Your task to perform on an android device: toggle notification dots Image 0: 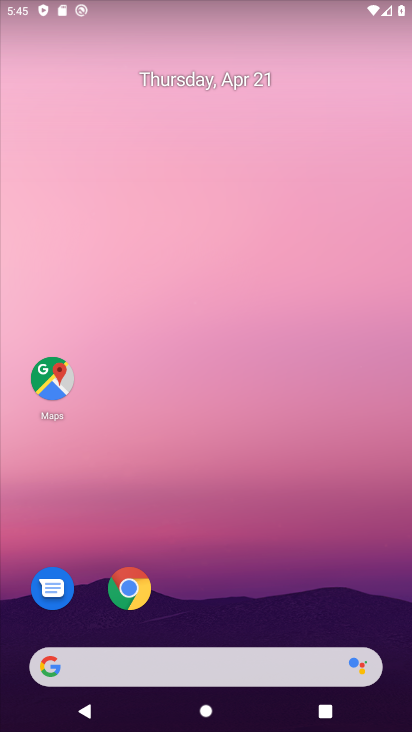
Step 0: drag from (280, 571) to (202, 231)
Your task to perform on an android device: toggle notification dots Image 1: 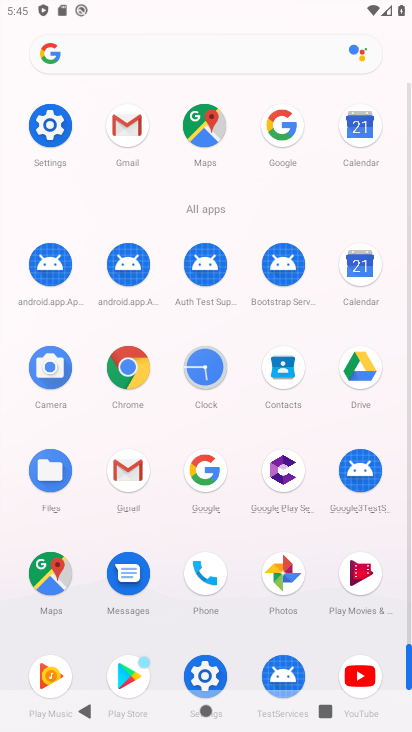
Step 1: click (34, 134)
Your task to perform on an android device: toggle notification dots Image 2: 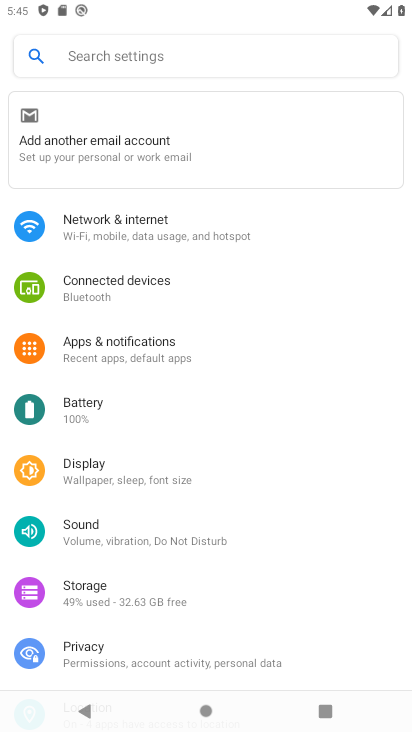
Step 2: click (158, 355)
Your task to perform on an android device: toggle notification dots Image 3: 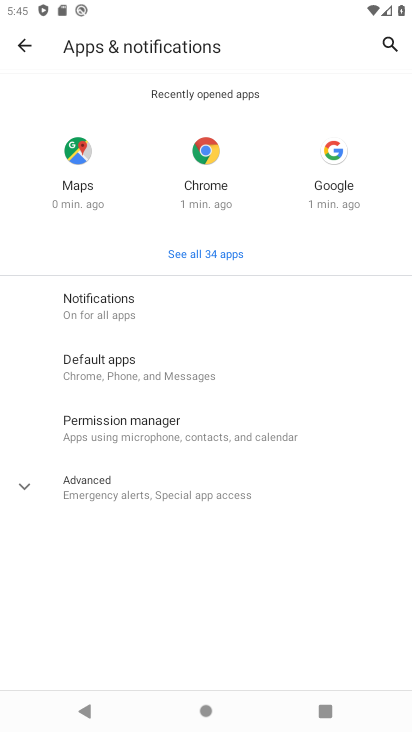
Step 3: click (108, 322)
Your task to perform on an android device: toggle notification dots Image 4: 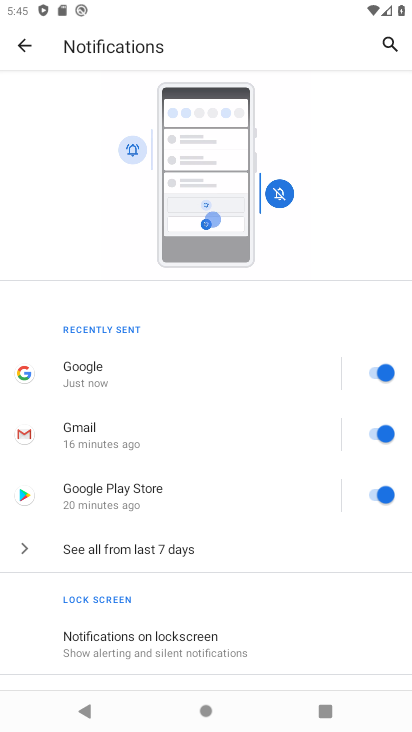
Step 4: drag from (174, 611) to (181, 327)
Your task to perform on an android device: toggle notification dots Image 5: 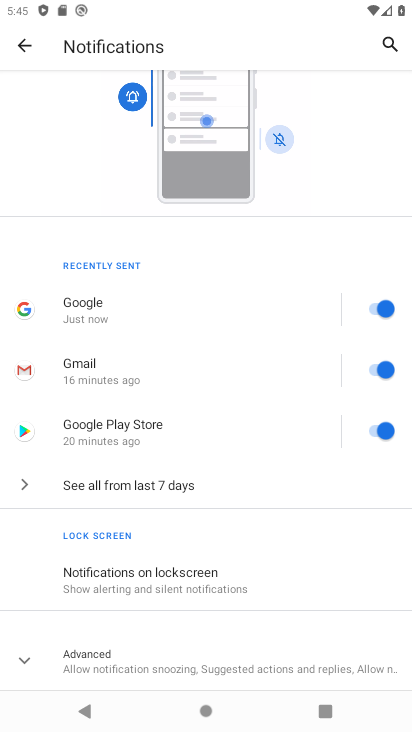
Step 5: click (101, 660)
Your task to perform on an android device: toggle notification dots Image 6: 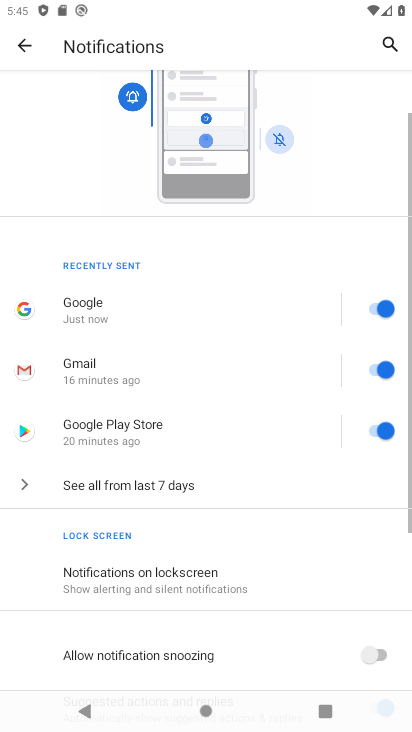
Step 6: drag from (199, 608) to (284, 369)
Your task to perform on an android device: toggle notification dots Image 7: 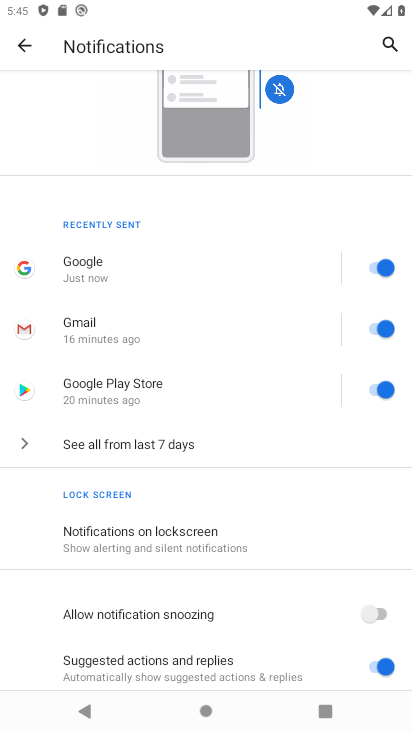
Step 7: drag from (285, 657) to (289, 395)
Your task to perform on an android device: toggle notification dots Image 8: 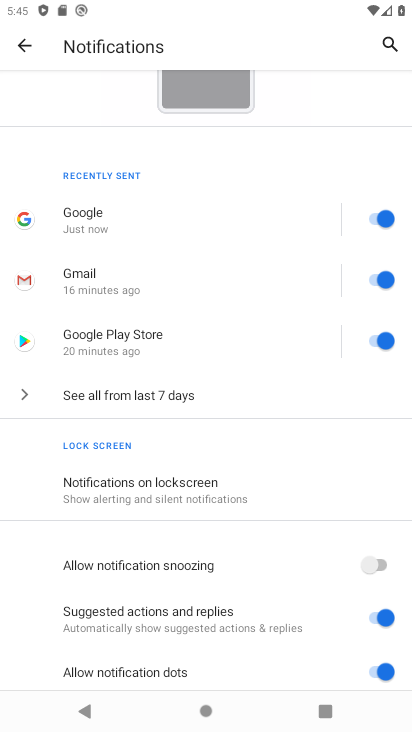
Step 8: click (375, 677)
Your task to perform on an android device: toggle notification dots Image 9: 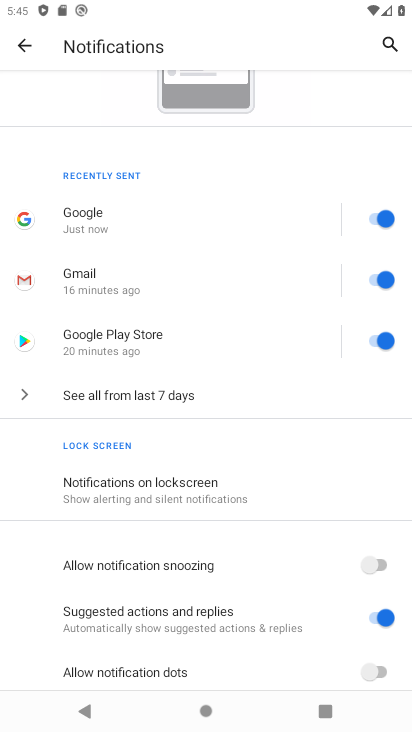
Step 9: task complete